Your task to perform on an android device: check android version Image 0: 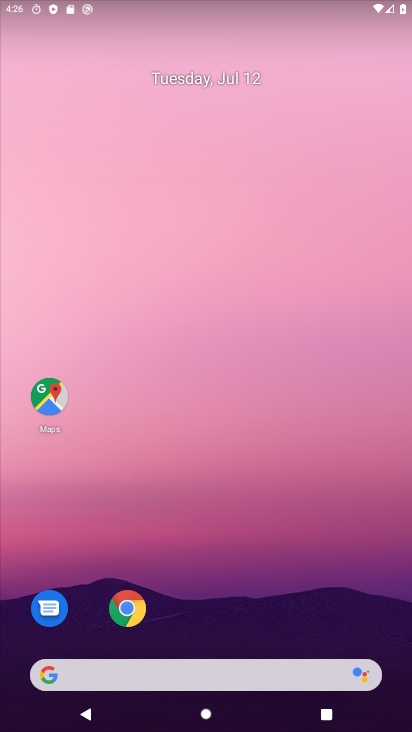
Step 0: drag from (238, 626) to (163, 98)
Your task to perform on an android device: check android version Image 1: 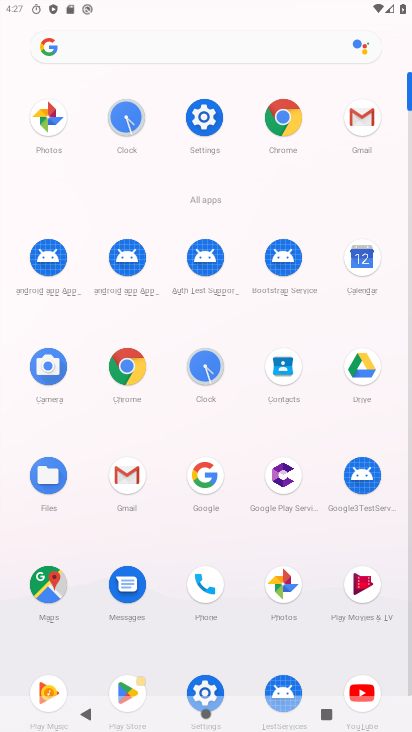
Step 1: click (198, 126)
Your task to perform on an android device: check android version Image 2: 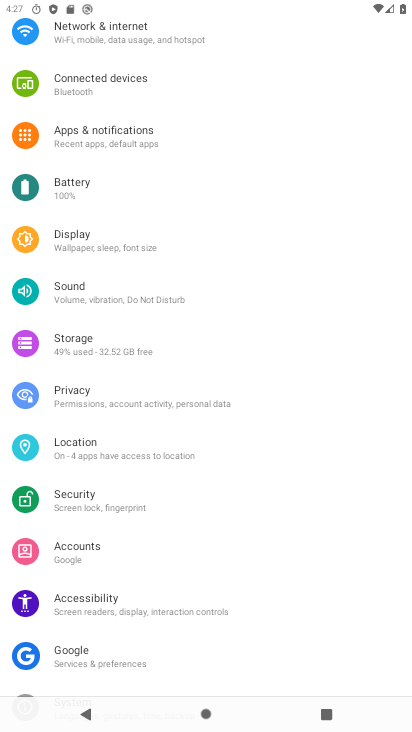
Step 2: drag from (221, 657) to (132, 211)
Your task to perform on an android device: check android version Image 3: 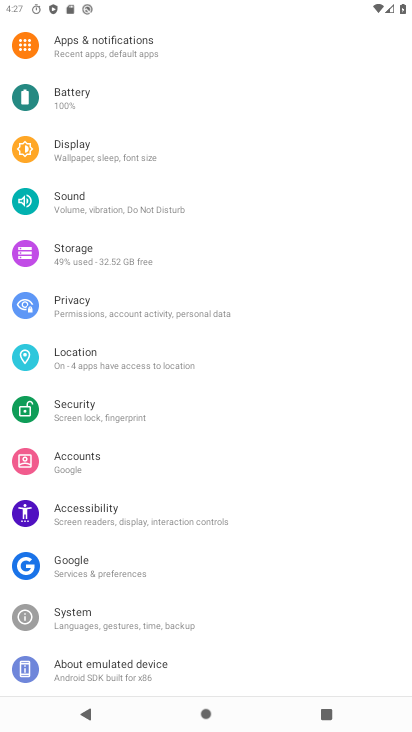
Step 3: click (163, 658)
Your task to perform on an android device: check android version Image 4: 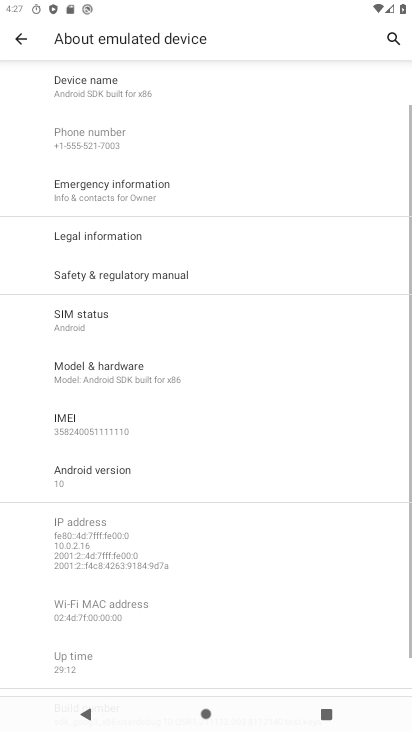
Step 4: click (153, 487)
Your task to perform on an android device: check android version Image 5: 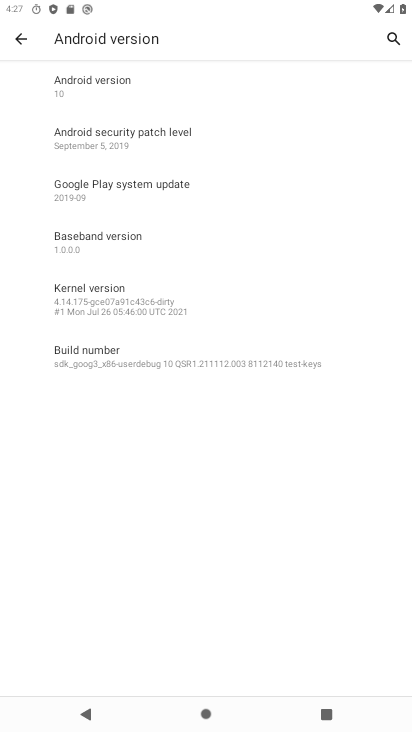
Step 5: task complete